Your task to perform on an android device: Open battery settings Image 0: 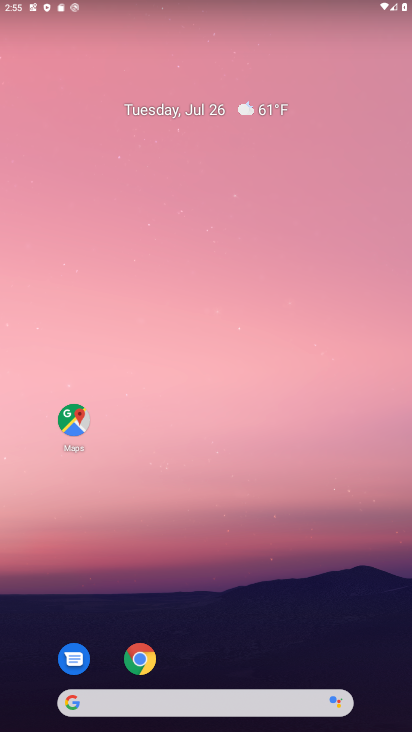
Step 0: click (176, 74)
Your task to perform on an android device: Open battery settings Image 1: 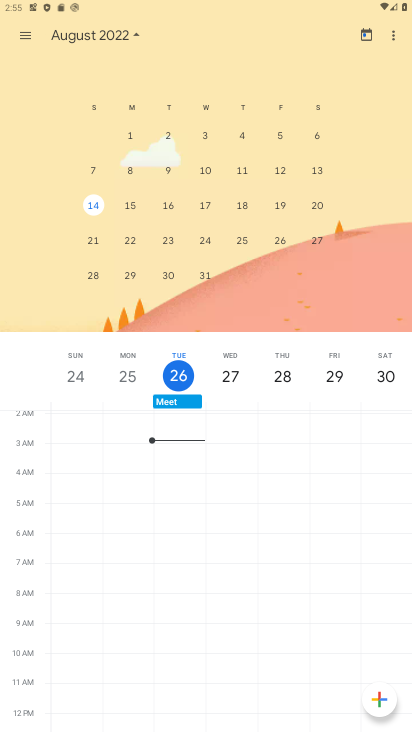
Step 1: press home button
Your task to perform on an android device: Open battery settings Image 2: 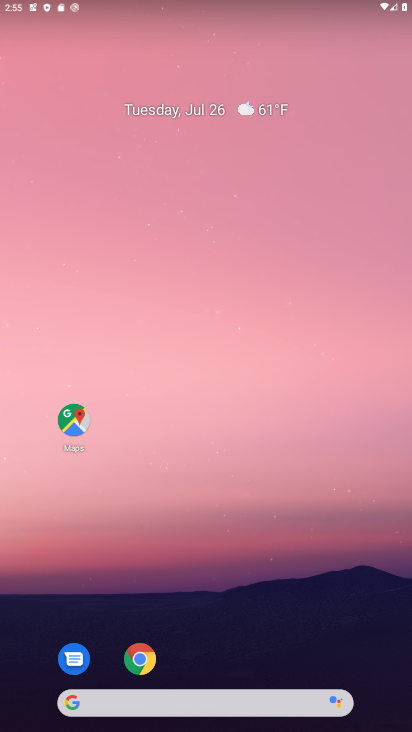
Step 2: drag from (167, 461) to (210, 118)
Your task to perform on an android device: Open battery settings Image 3: 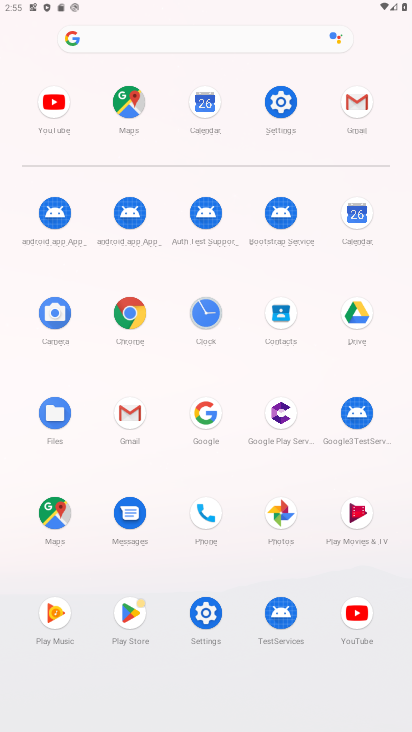
Step 3: click (284, 106)
Your task to perform on an android device: Open battery settings Image 4: 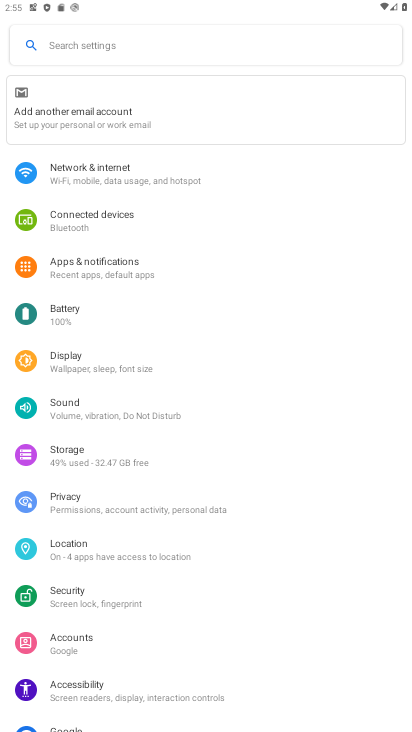
Step 4: click (67, 313)
Your task to perform on an android device: Open battery settings Image 5: 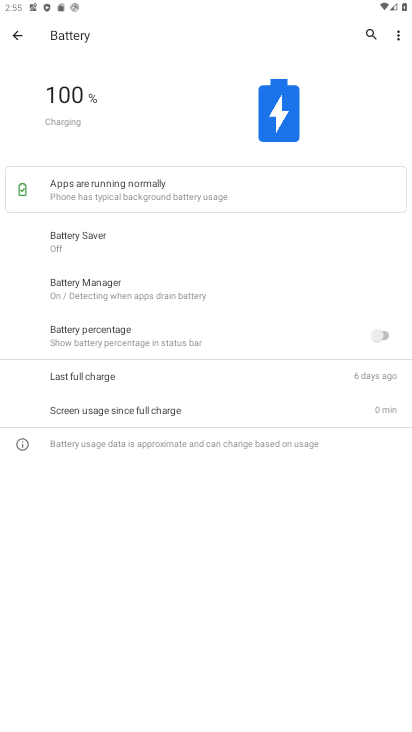
Step 5: task complete